Your task to perform on an android device: see creations saved in the google photos Image 0: 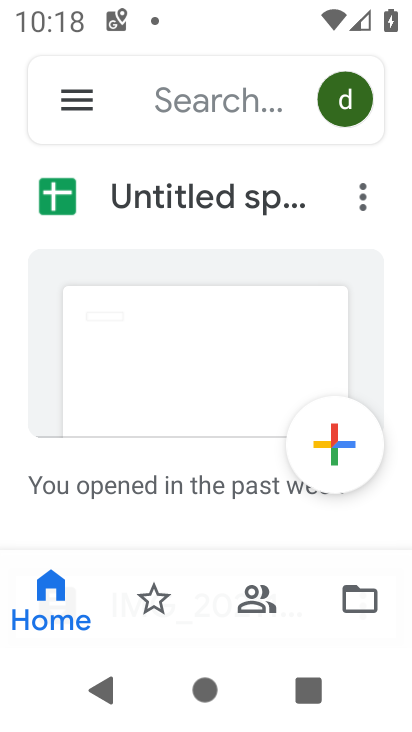
Step 0: drag from (167, 5) to (182, 544)
Your task to perform on an android device: see creations saved in the google photos Image 1: 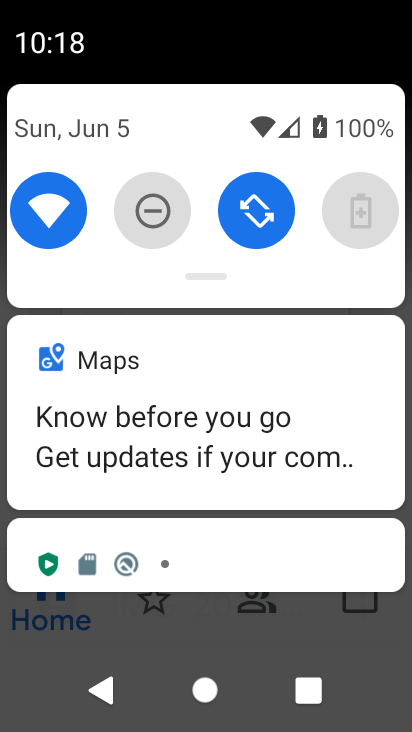
Step 1: click (263, 642)
Your task to perform on an android device: see creations saved in the google photos Image 2: 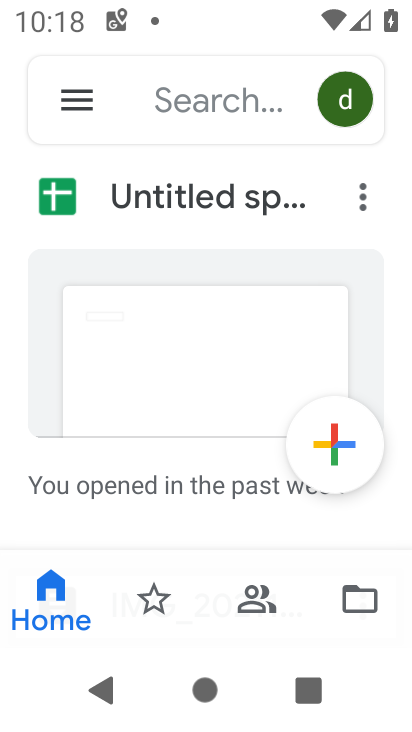
Step 2: press home button
Your task to perform on an android device: see creations saved in the google photos Image 3: 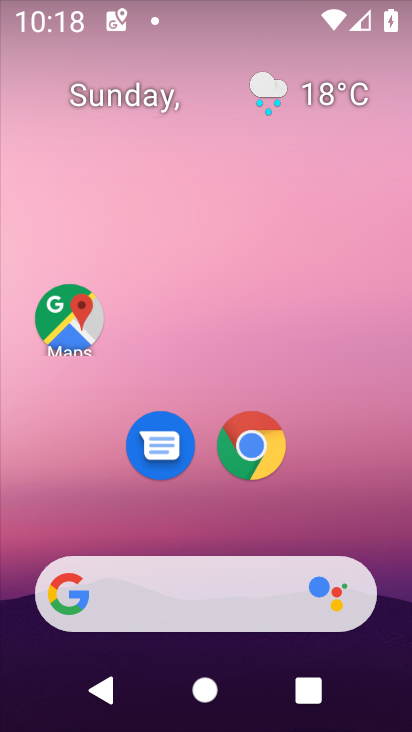
Step 3: drag from (200, 514) to (273, 42)
Your task to perform on an android device: see creations saved in the google photos Image 4: 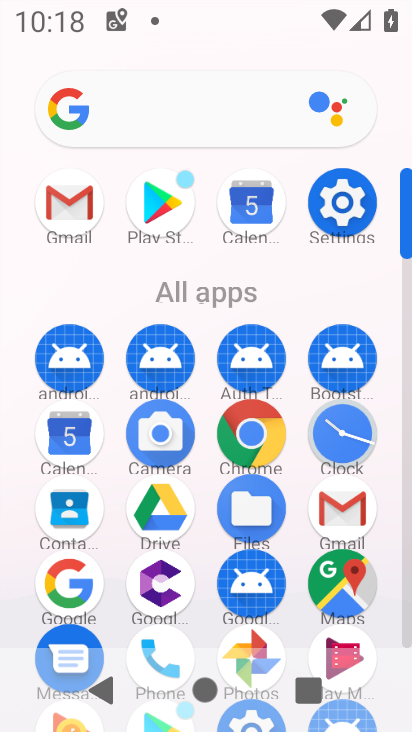
Step 4: click (243, 628)
Your task to perform on an android device: see creations saved in the google photos Image 5: 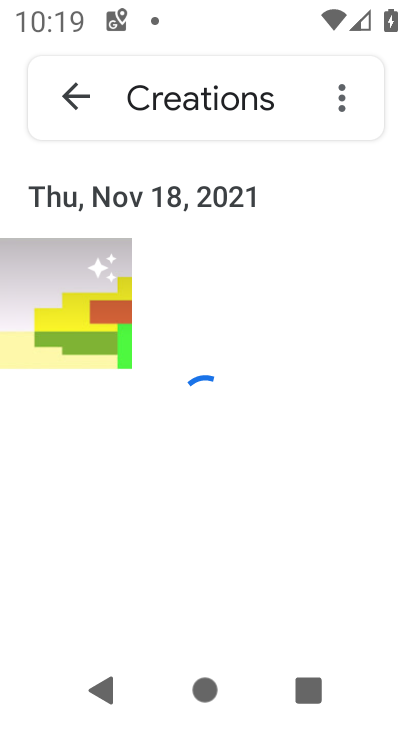
Step 5: task complete